Your task to perform on an android device: Open eBay Image 0: 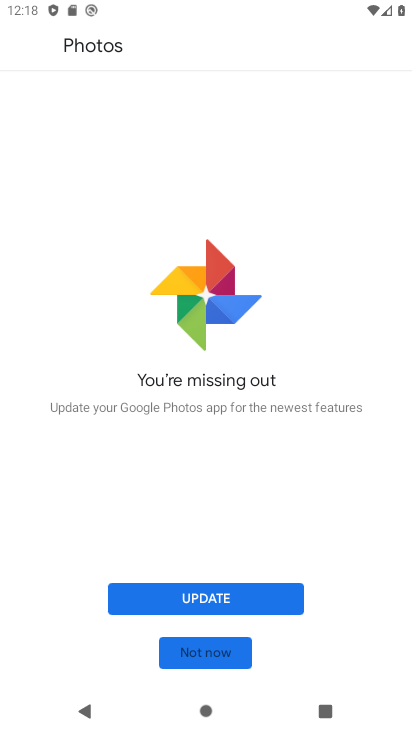
Step 0: press home button
Your task to perform on an android device: Open eBay Image 1: 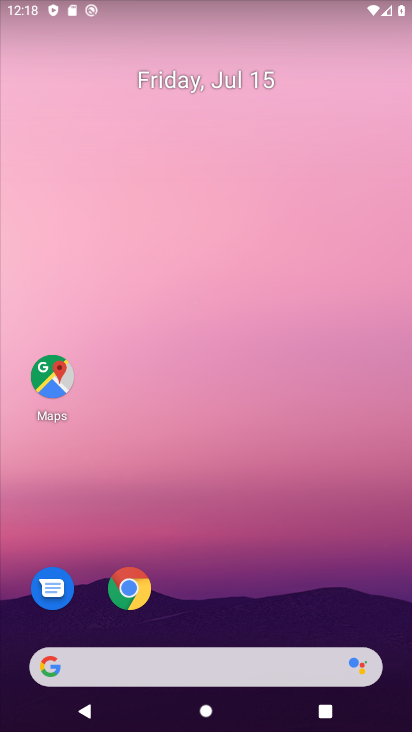
Step 1: click (135, 581)
Your task to perform on an android device: Open eBay Image 2: 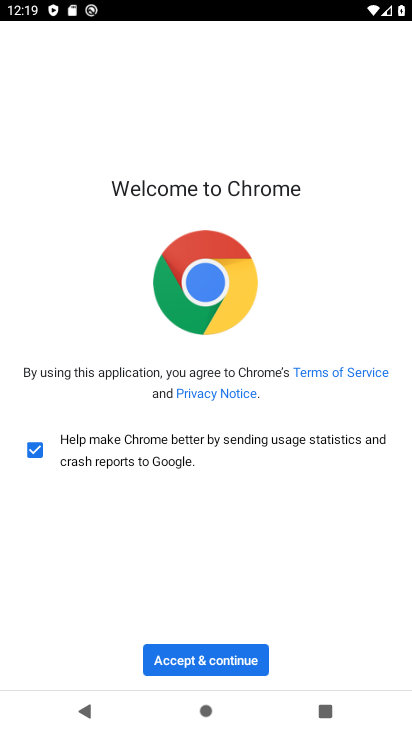
Step 2: click (173, 661)
Your task to perform on an android device: Open eBay Image 3: 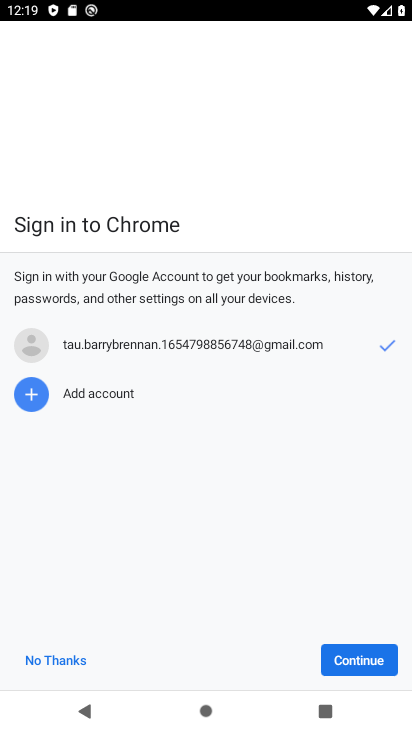
Step 3: click (357, 651)
Your task to perform on an android device: Open eBay Image 4: 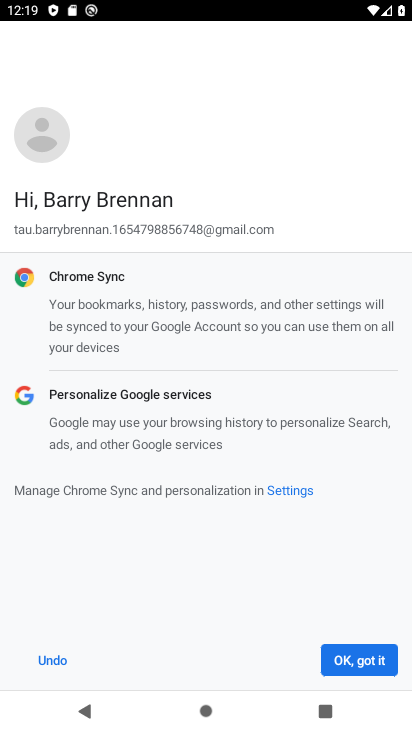
Step 4: click (357, 651)
Your task to perform on an android device: Open eBay Image 5: 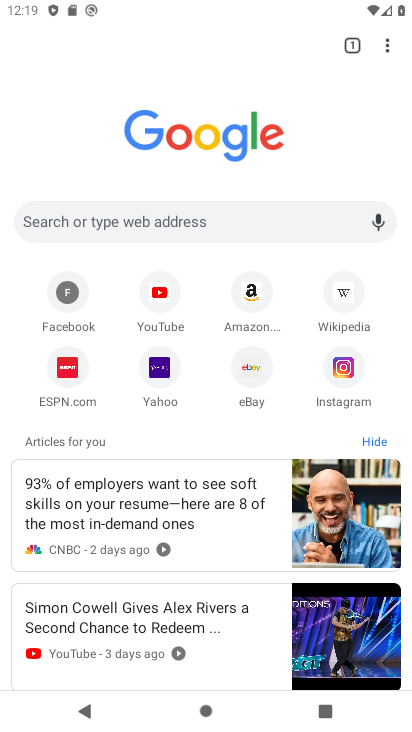
Step 5: click (247, 370)
Your task to perform on an android device: Open eBay Image 6: 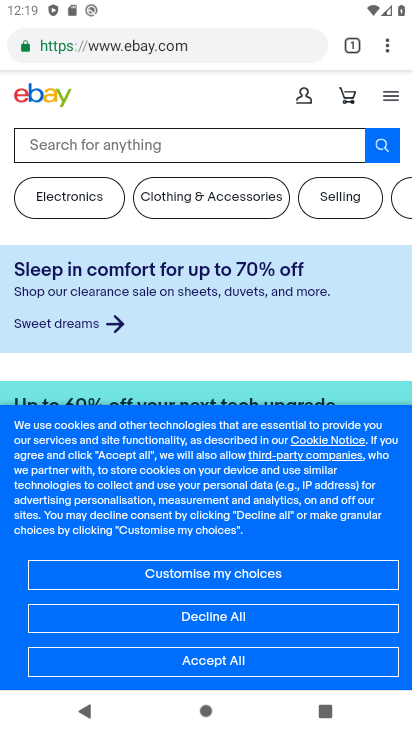
Step 6: task complete